Your task to perform on an android device: delete browsing data in the chrome app Image 0: 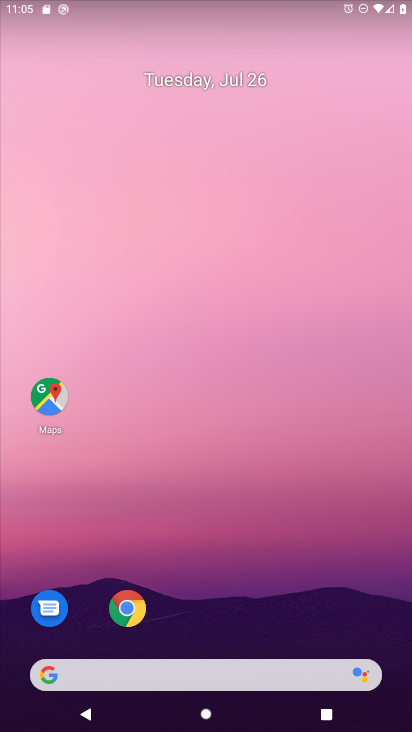
Step 0: drag from (290, 591) to (233, 59)
Your task to perform on an android device: delete browsing data in the chrome app Image 1: 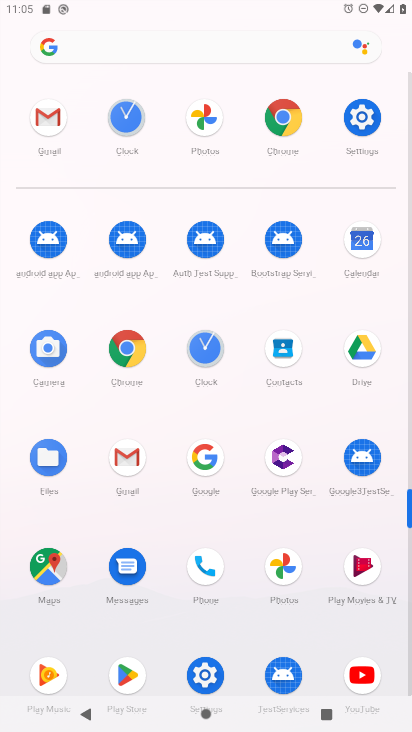
Step 1: click (282, 117)
Your task to perform on an android device: delete browsing data in the chrome app Image 2: 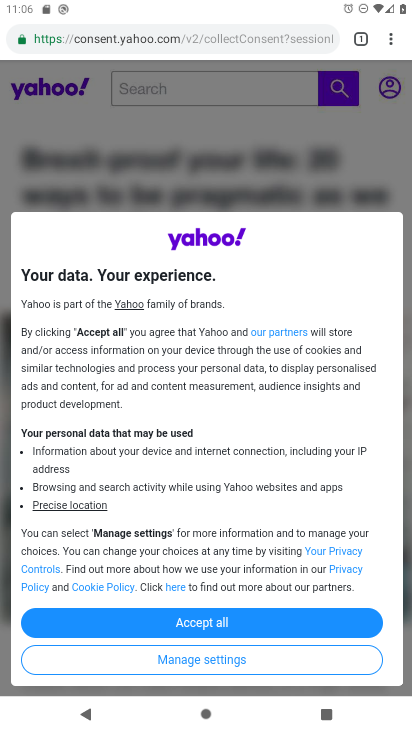
Step 2: drag from (392, 38) to (259, 220)
Your task to perform on an android device: delete browsing data in the chrome app Image 3: 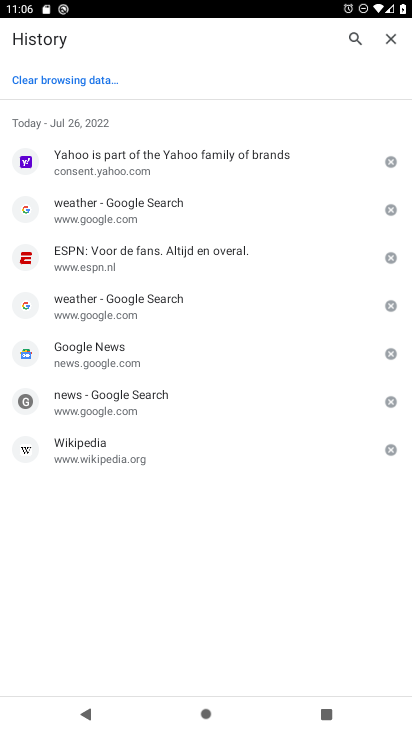
Step 3: click (81, 78)
Your task to perform on an android device: delete browsing data in the chrome app Image 4: 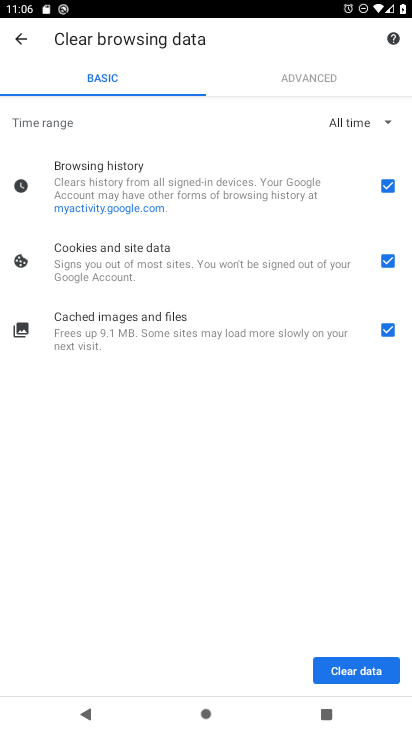
Step 4: click (353, 675)
Your task to perform on an android device: delete browsing data in the chrome app Image 5: 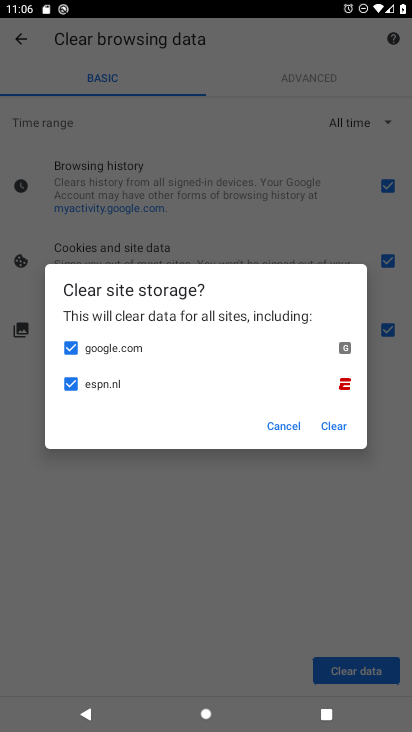
Step 5: click (342, 434)
Your task to perform on an android device: delete browsing data in the chrome app Image 6: 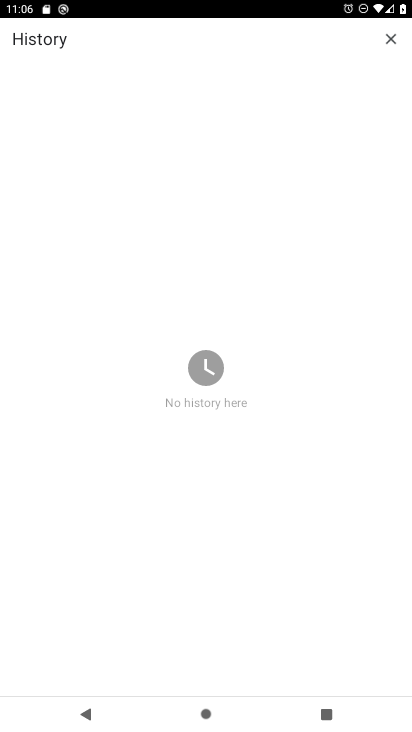
Step 6: task complete